Your task to perform on an android device: change the clock display to digital Image 0: 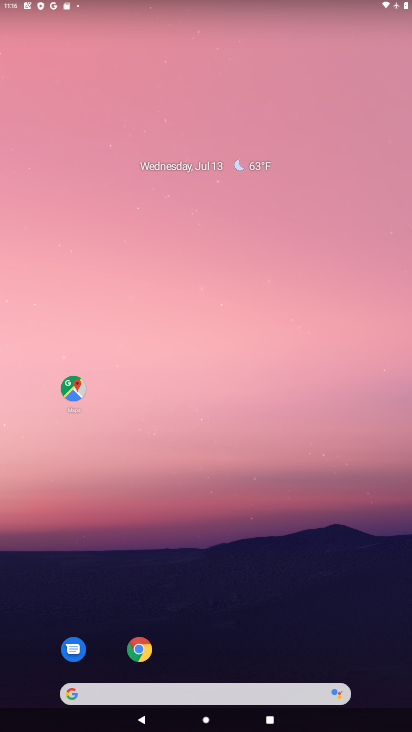
Step 0: drag from (290, 572) to (263, 252)
Your task to perform on an android device: change the clock display to digital Image 1: 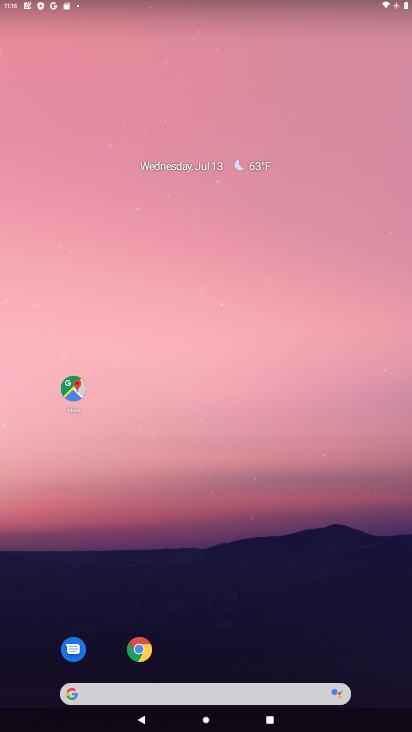
Step 1: drag from (268, 619) to (231, 254)
Your task to perform on an android device: change the clock display to digital Image 2: 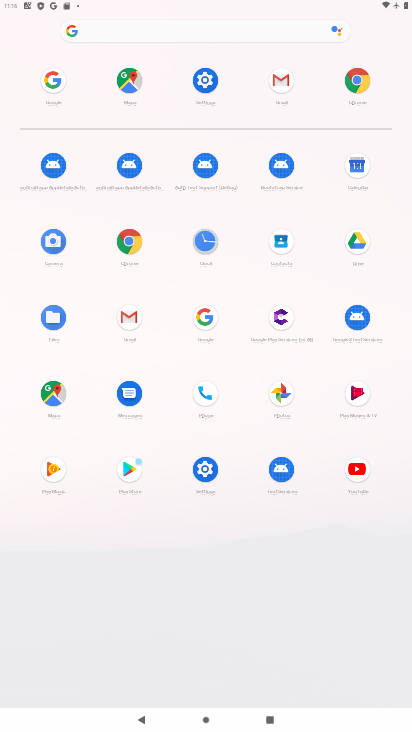
Step 2: click (202, 234)
Your task to perform on an android device: change the clock display to digital Image 3: 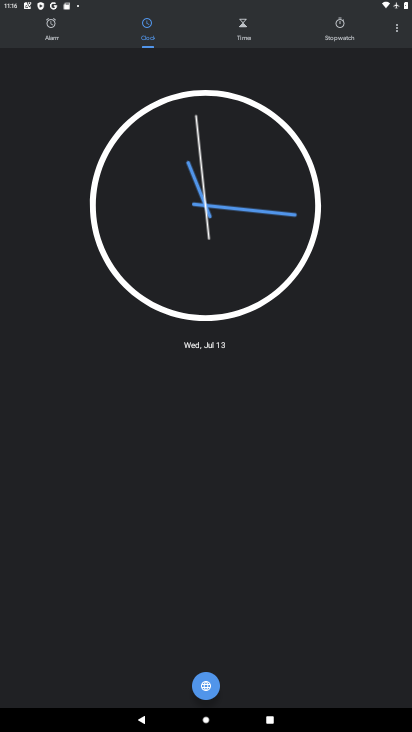
Step 3: click (395, 23)
Your task to perform on an android device: change the clock display to digital Image 4: 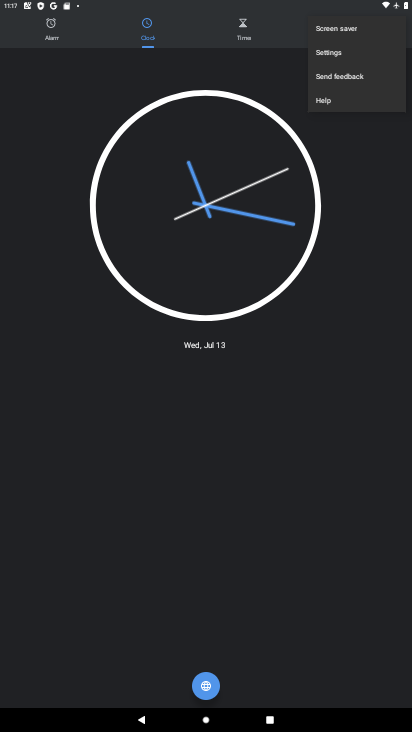
Step 4: click (345, 52)
Your task to perform on an android device: change the clock display to digital Image 5: 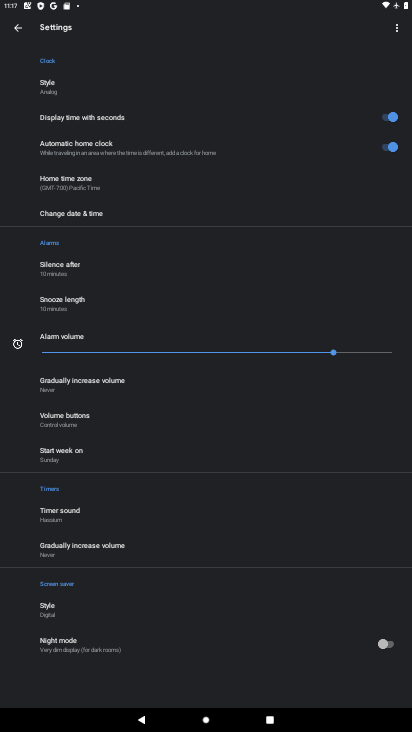
Step 5: click (44, 72)
Your task to perform on an android device: change the clock display to digital Image 6: 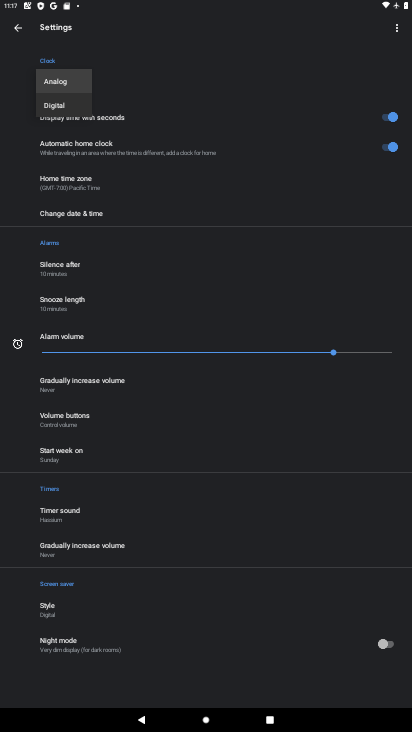
Step 6: click (54, 105)
Your task to perform on an android device: change the clock display to digital Image 7: 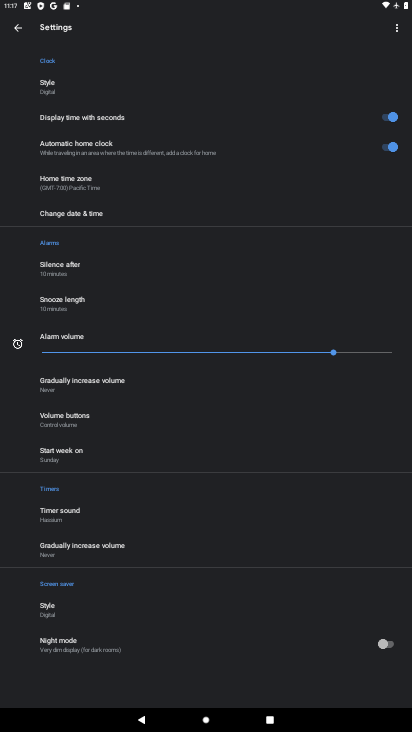
Step 7: task complete